Your task to perform on an android device: toggle improve location accuracy Image 0: 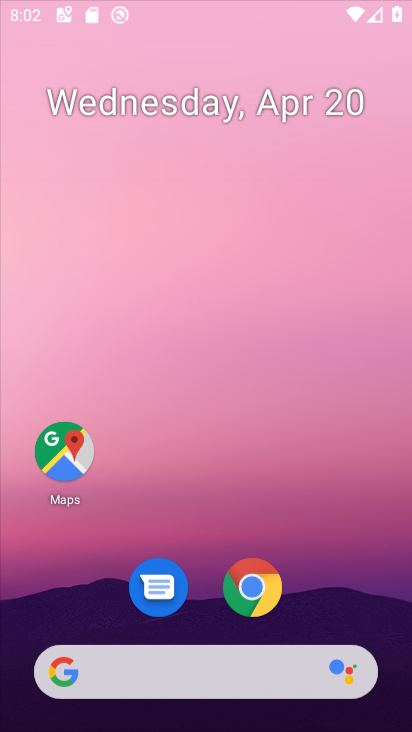
Step 0: drag from (326, 611) to (293, 112)
Your task to perform on an android device: toggle improve location accuracy Image 1: 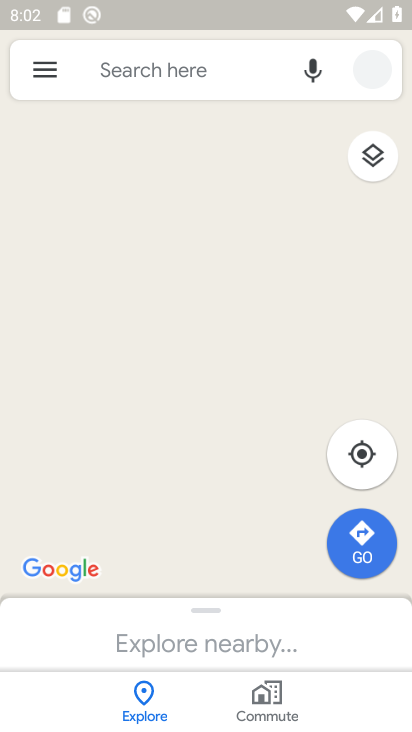
Step 1: press back button
Your task to perform on an android device: toggle improve location accuracy Image 2: 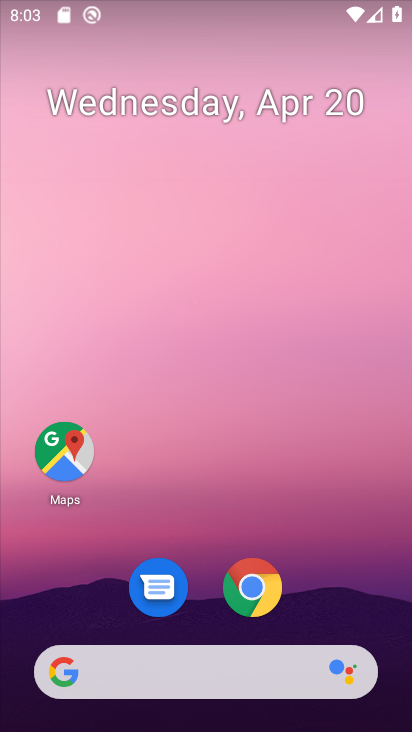
Step 2: drag from (336, 581) to (331, 243)
Your task to perform on an android device: toggle improve location accuracy Image 3: 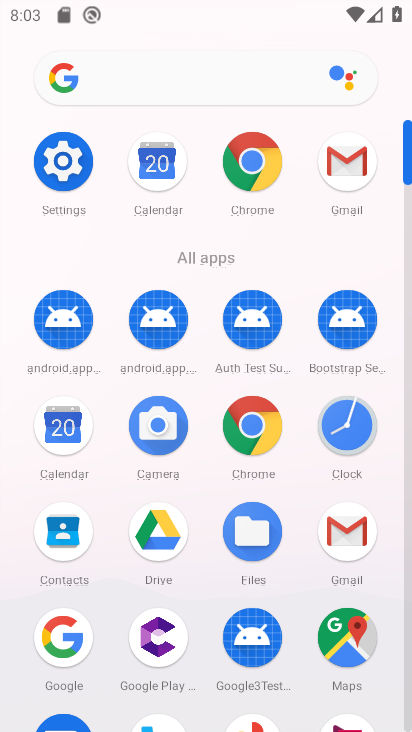
Step 3: click (67, 157)
Your task to perform on an android device: toggle improve location accuracy Image 4: 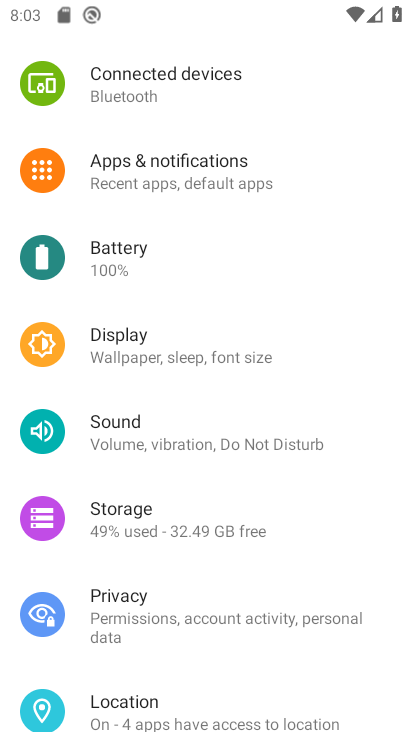
Step 4: click (228, 717)
Your task to perform on an android device: toggle improve location accuracy Image 5: 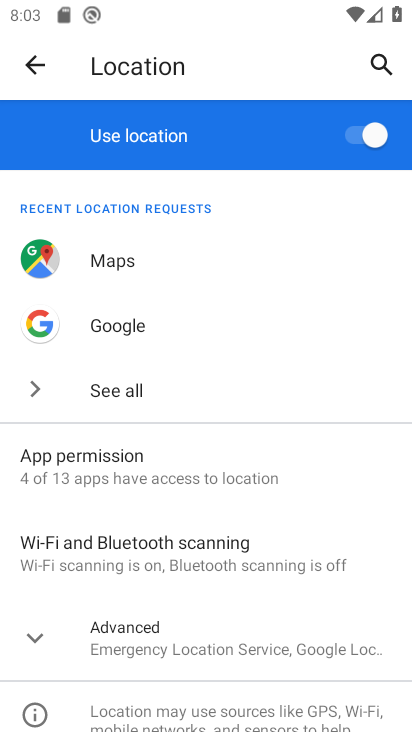
Step 5: drag from (155, 583) to (160, 328)
Your task to perform on an android device: toggle improve location accuracy Image 6: 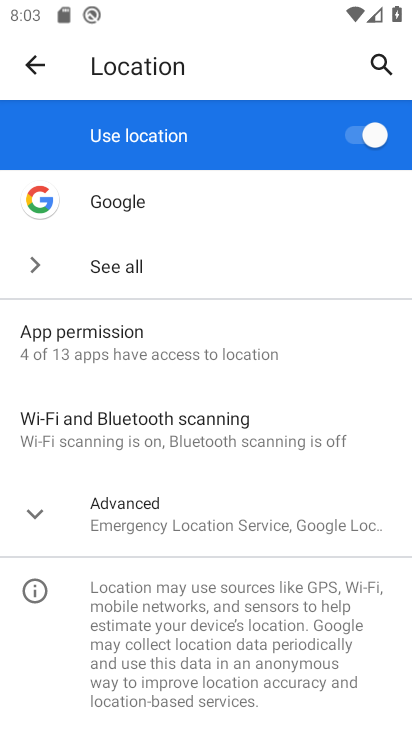
Step 6: click (85, 497)
Your task to perform on an android device: toggle improve location accuracy Image 7: 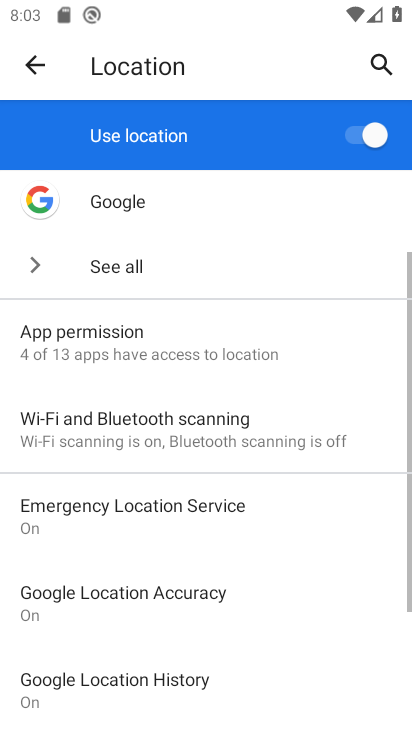
Step 7: drag from (85, 497) to (89, 305)
Your task to perform on an android device: toggle improve location accuracy Image 8: 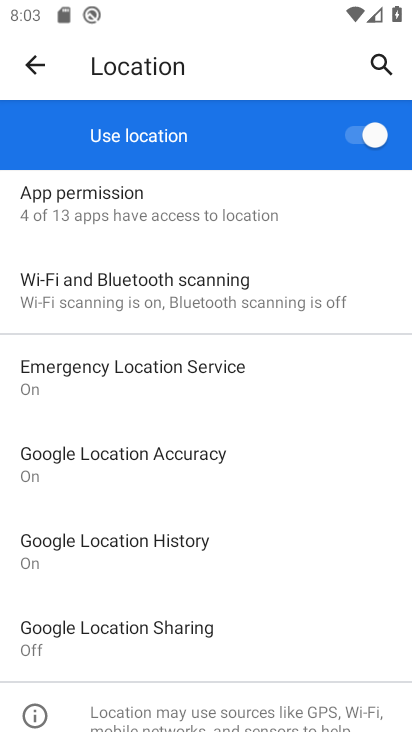
Step 8: click (115, 448)
Your task to perform on an android device: toggle improve location accuracy Image 9: 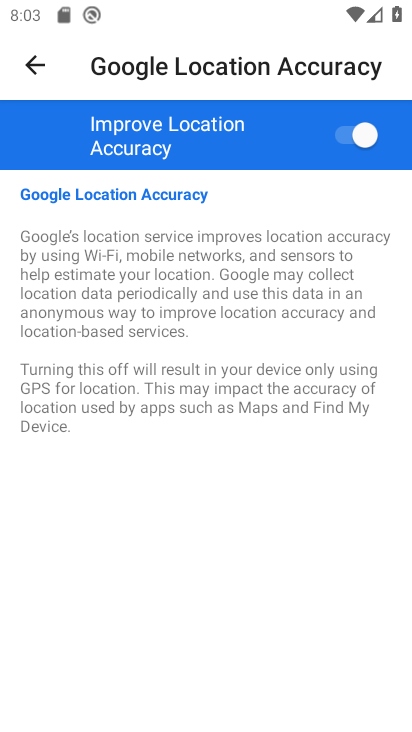
Step 9: click (356, 119)
Your task to perform on an android device: toggle improve location accuracy Image 10: 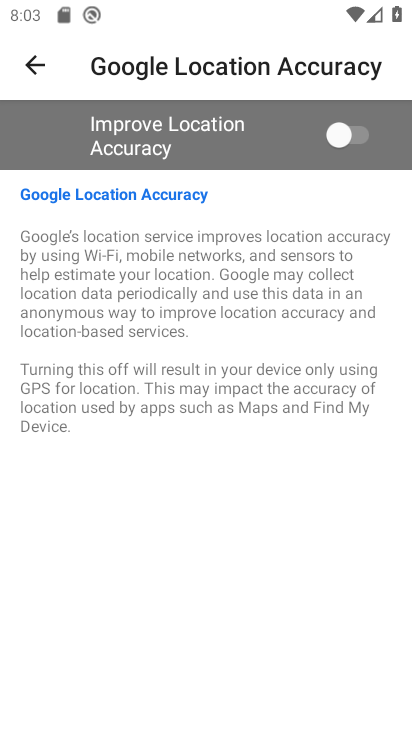
Step 10: task complete